Your task to perform on an android device: refresh tabs in the chrome app Image 0: 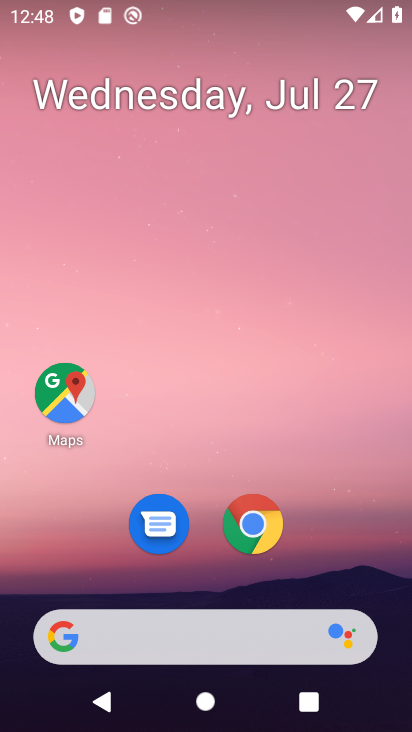
Step 0: click (258, 523)
Your task to perform on an android device: refresh tabs in the chrome app Image 1: 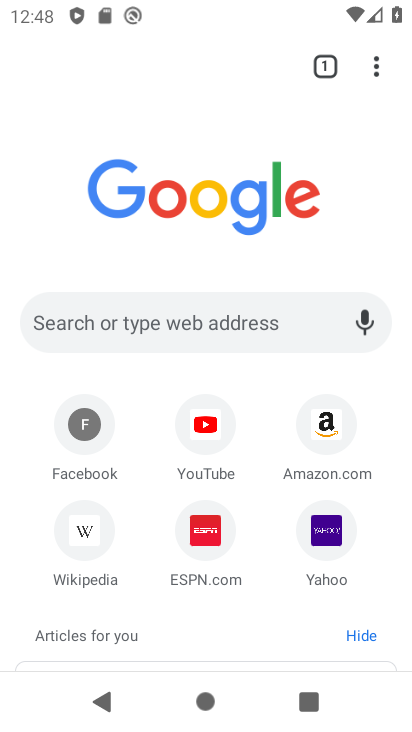
Step 1: click (372, 70)
Your task to perform on an android device: refresh tabs in the chrome app Image 2: 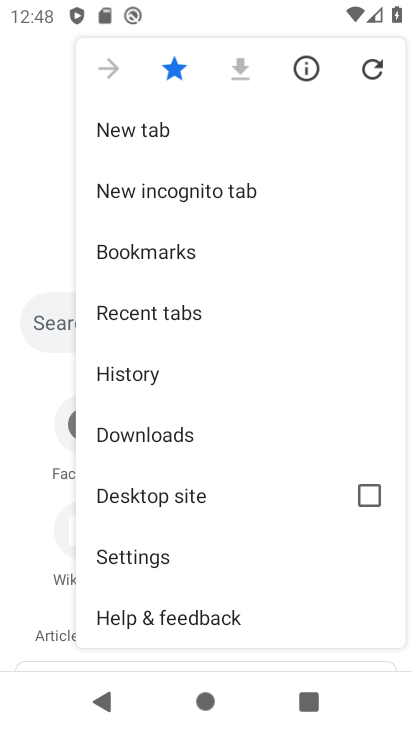
Step 2: click (372, 70)
Your task to perform on an android device: refresh tabs in the chrome app Image 3: 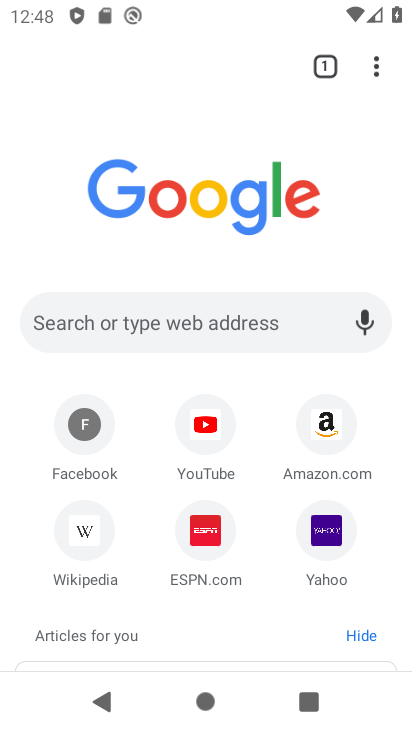
Step 3: task complete